Your task to perform on an android device: Open the phone app and click the voicemail tab. Image 0: 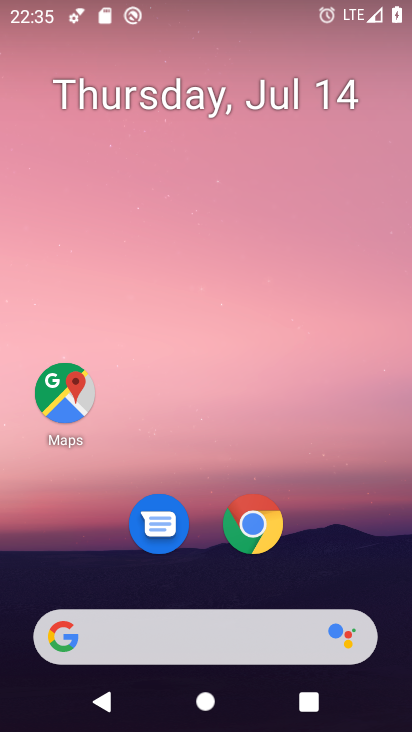
Step 0: drag from (231, 452) to (280, 7)
Your task to perform on an android device: Open the phone app and click the voicemail tab. Image 1: 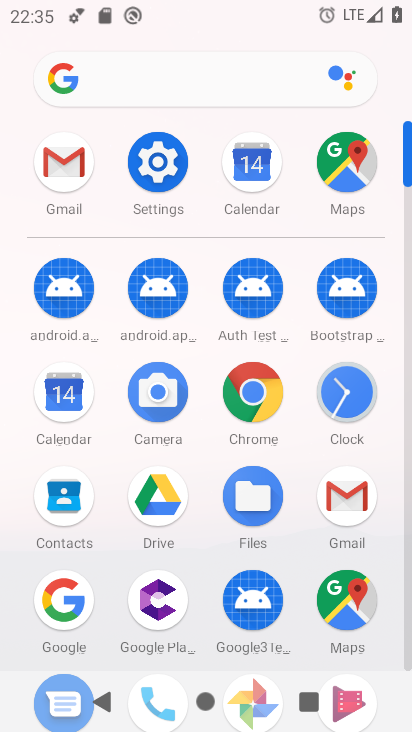
Step 1: drag from (199, 447) to (209, 69)
Your task to perform on an android device: Open the phone app and click the voicemail tab. Image 2: 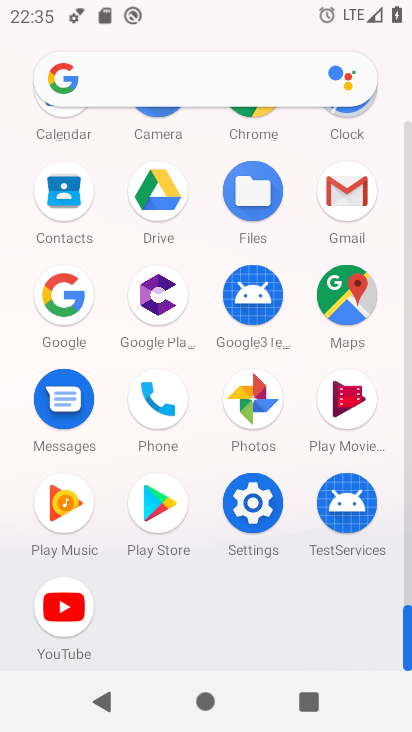
Step 2: click (174, 396)
Your task to perform on an android device: Open the phone app and click the voicemail tab. Image 3: 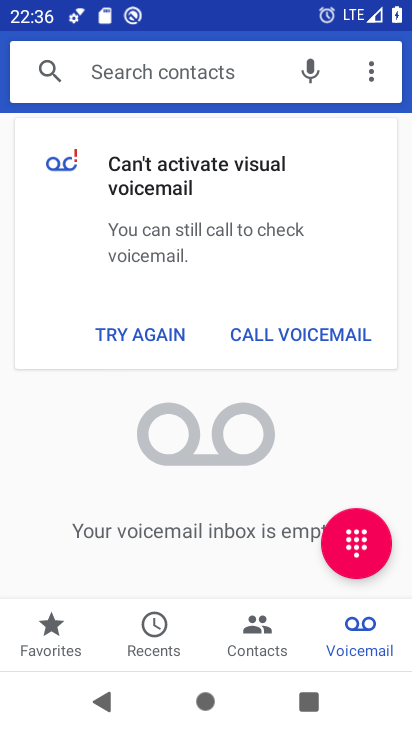
Step 3: click (336, 634)
Your task to perform on an android device: Open the phone app and click the voicemail tab. Image 4: 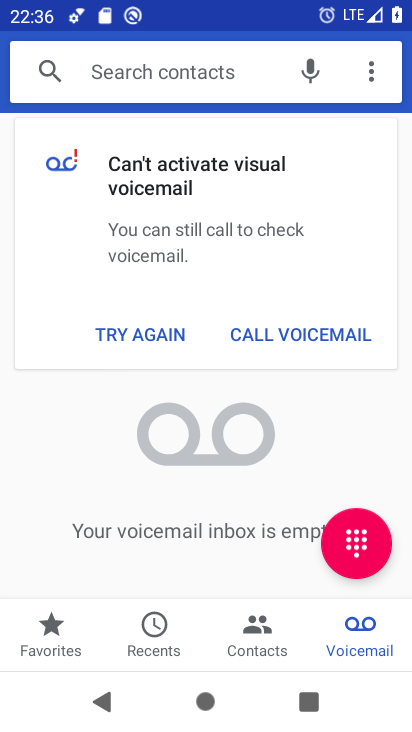
Step 4: task complete